Your task to perform on an android device: Open calendar and show me the second week of next month Image 0: 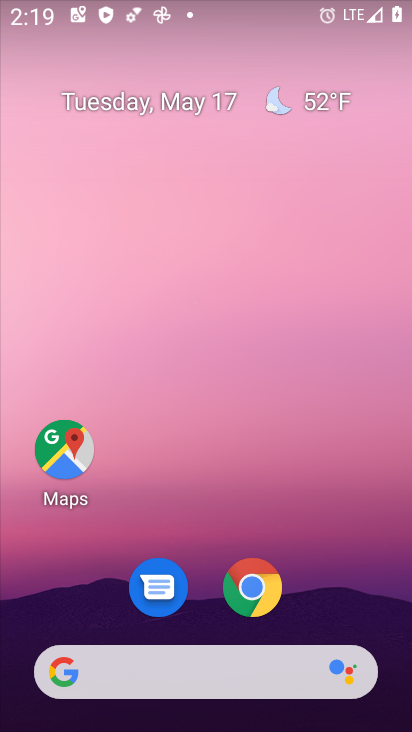
Step 0: drag from (354, 593) to (306, 3)
Your task to perform on an android device: Open calendar and show me the second week of next month Image 1: 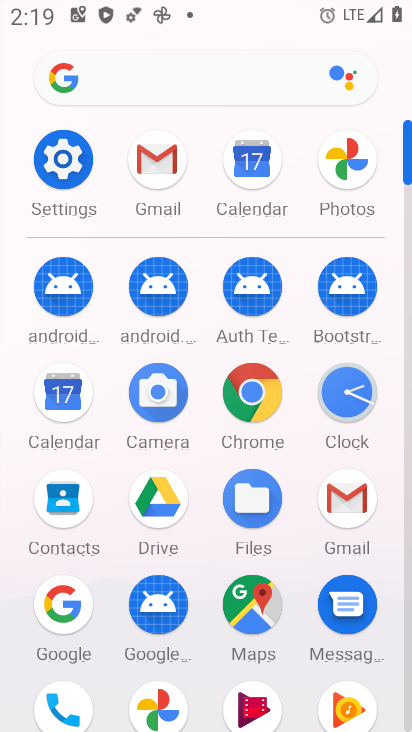
Step 1: click (62, 433)
Your task to perform on an android device: Open calendar and show me the second week of next month Image 2: 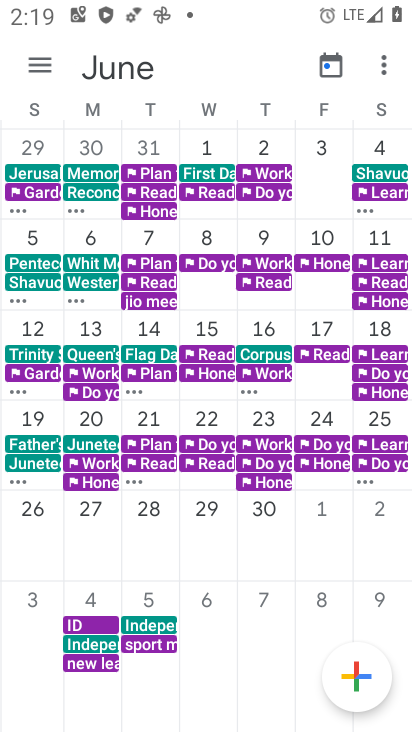
Step 2: task complete